Your task to perform on an android device: Open settings Image 0: 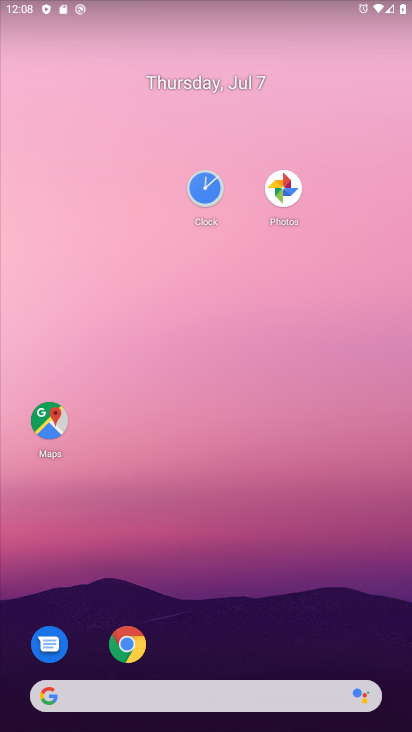
Step 0: drag from (212, 623) to (244, 103)
Your task to perform on an android device: Open settings Image 1: 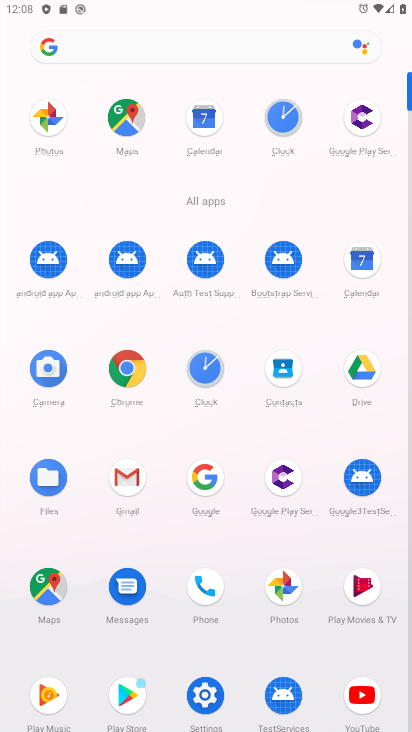
Step 1: click (215, 695)
Your task to perform on an android device: Open settings Image 2: 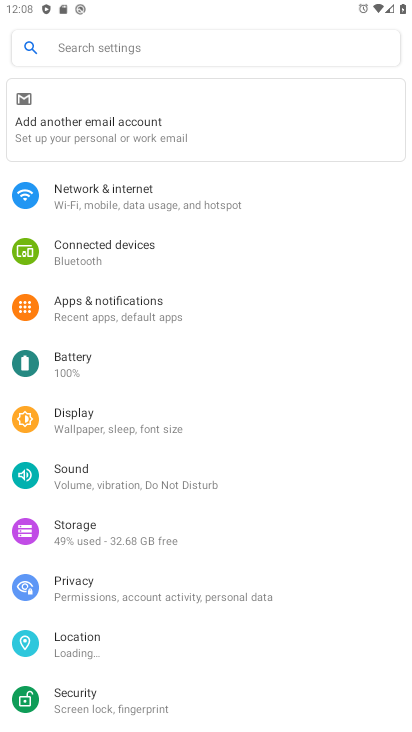
Step 2: task complete